Your task to perform on an android device: Go to CNN.com Image 0: 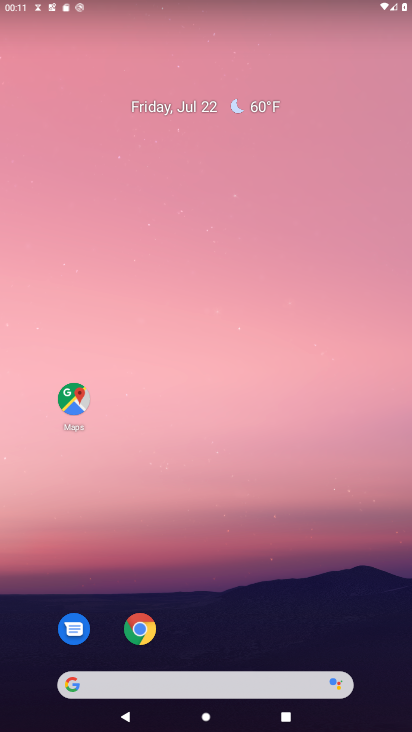
Step 0: drag from (210, 622) to (146, 184)
Your task to perform on an android device: Go to CNN.com Image 1: 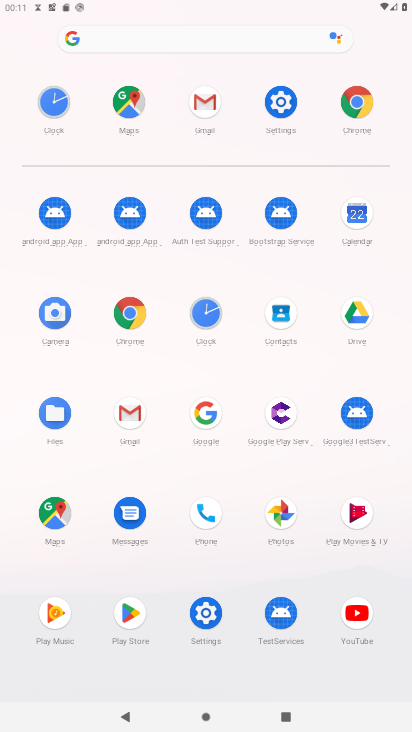
Step 1: click (361, 98)
Your task to perform on an android device: Go to CNN.com Image 2: 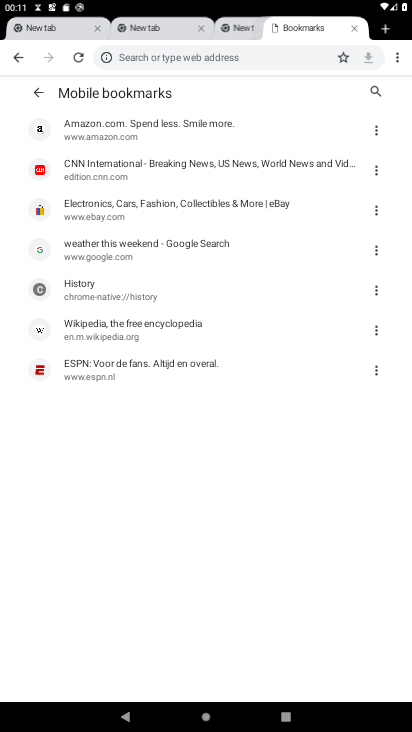
Step 2: click (381, 26)
Your task to perform on an android device: Go to CNN.com Image 3: 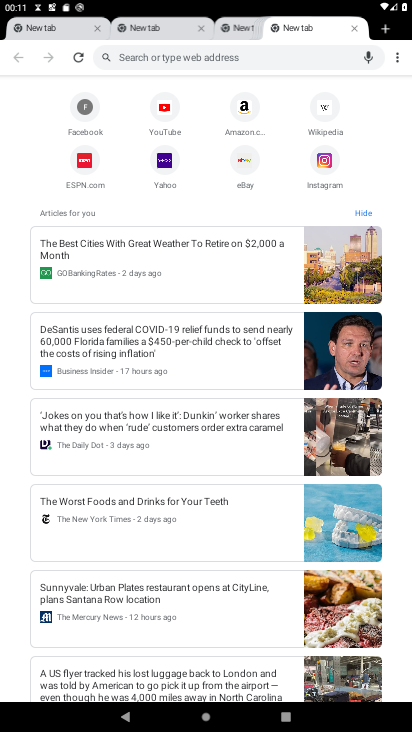
Step 3: click (244, 51)
Your task to perform on an android device: Go to CNN.com Image 4: 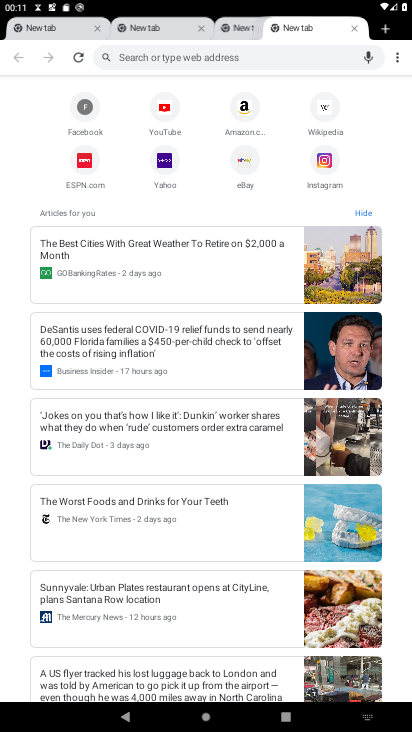
Step 4: type "  CNN.com"
Your task to perform on an android device: Go to CNN.com Image 5: 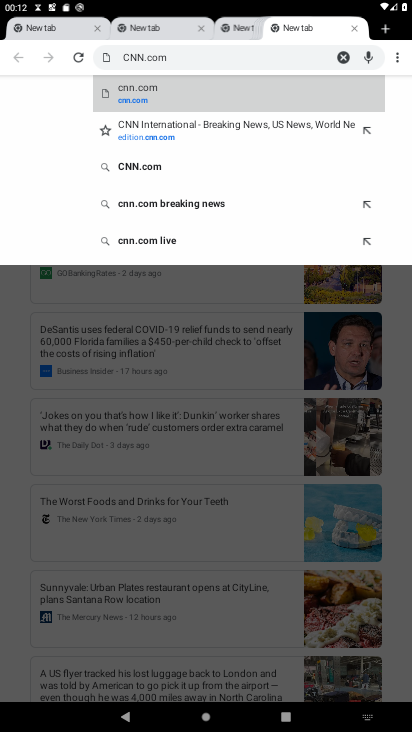
Step 5: click (215, 92)
Your task to perform on an android device: Go to CNN.com Image 6: 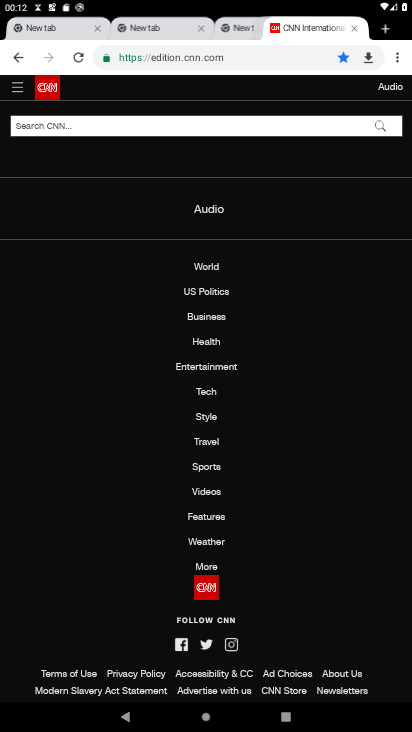
Step 6: task complete